Your task to perform on an android device: Open the web browser Image 0: 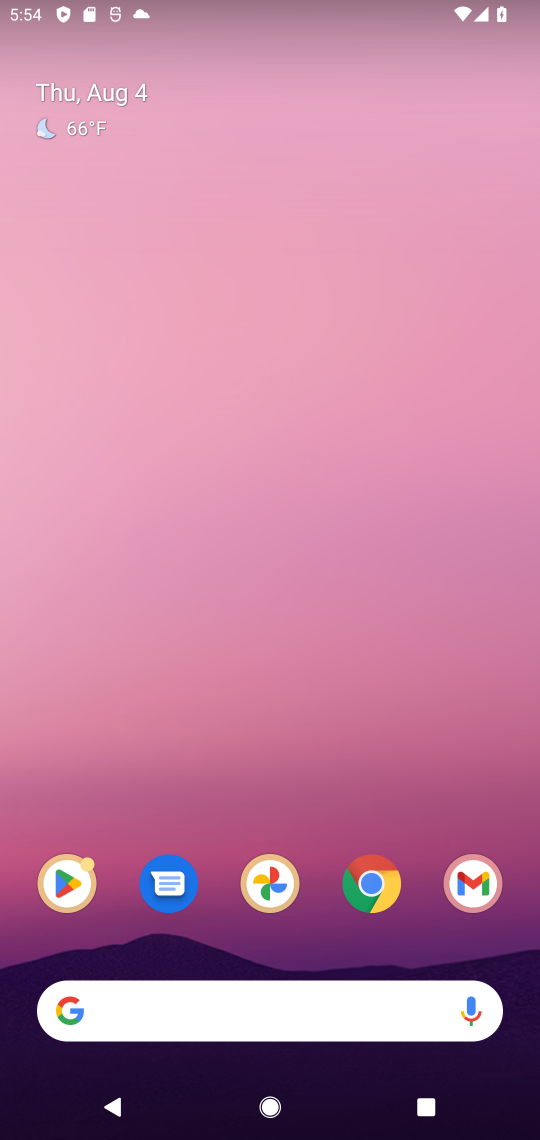
Step 0: click (394, 883)
Your task to perform on an android device: Open the web browser Image 1: 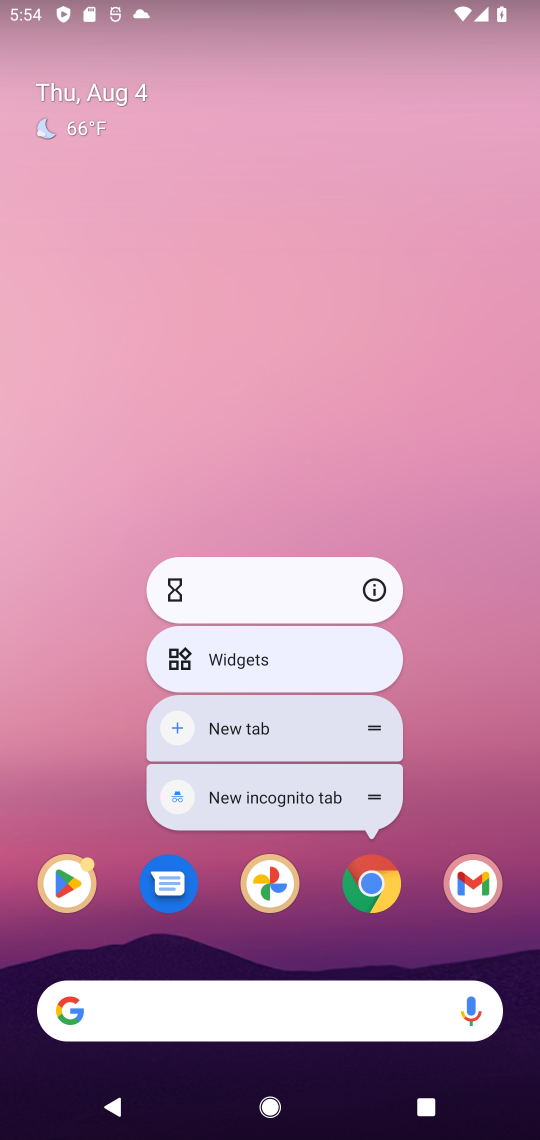
Step 1: click (394, 883)
Your task to perform on an android device: Open the web browser Image 2: 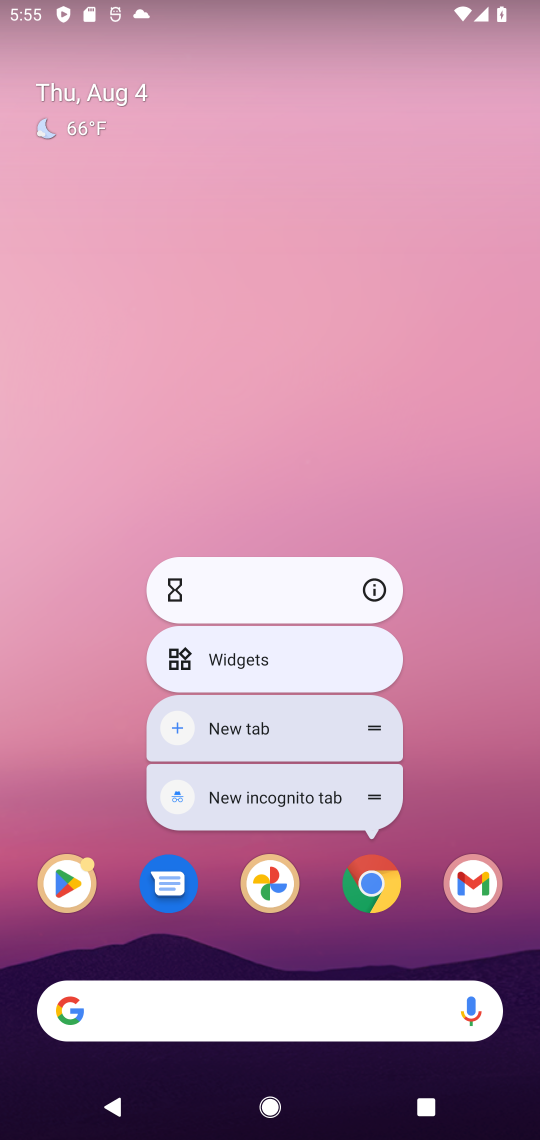
Step 2: click (394, 883)
Your task to perform on an android device: Open the web browser Image 3: 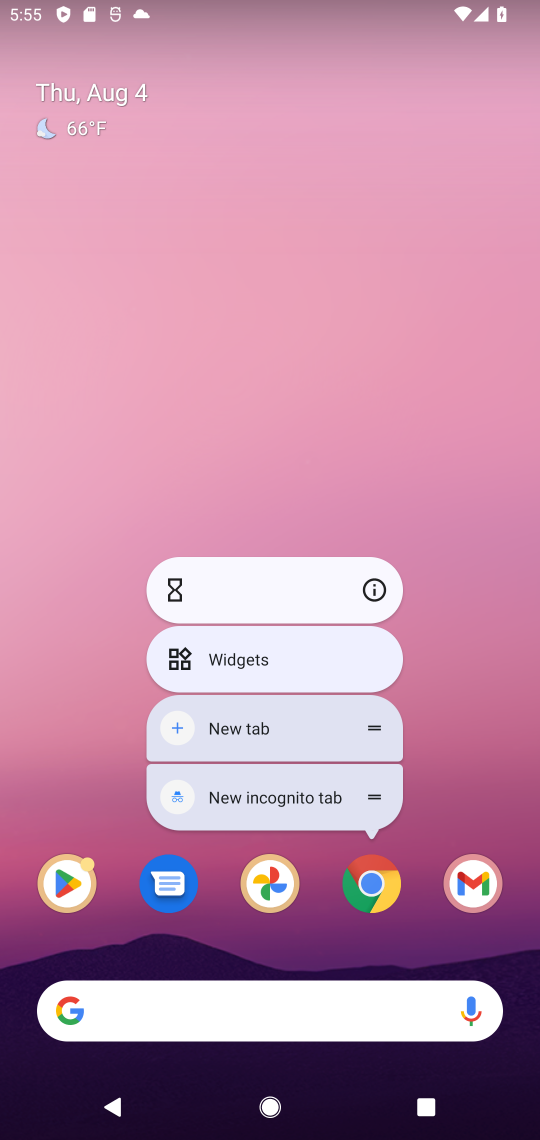
Step 3: click (394, 883)
Your task to perform on an android device: Open the web browser Image 4: 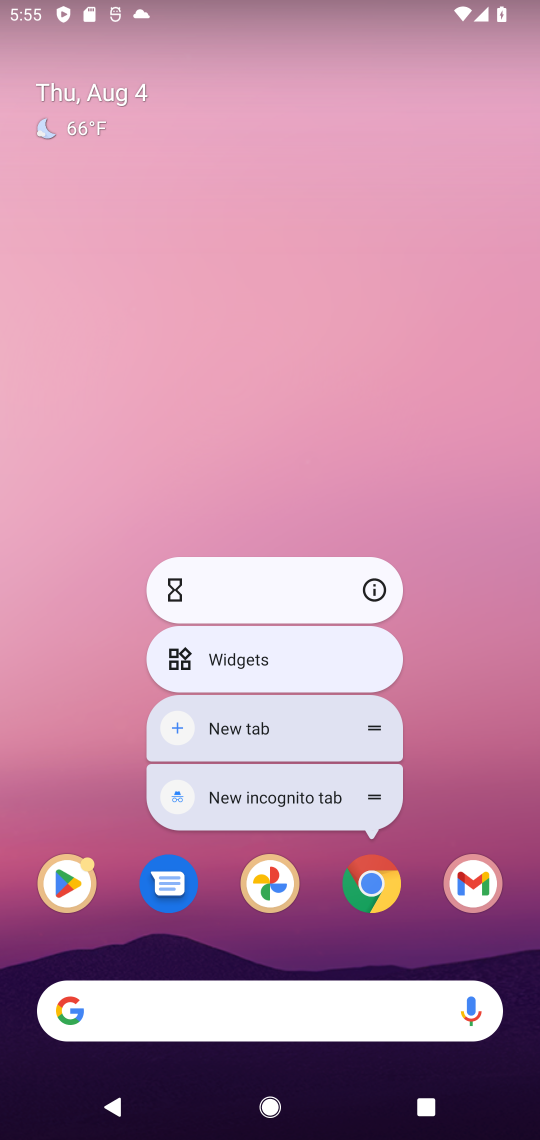
Step 4: click (394, 883)
Your task to perform on an android device: Open the web browser Image 5: 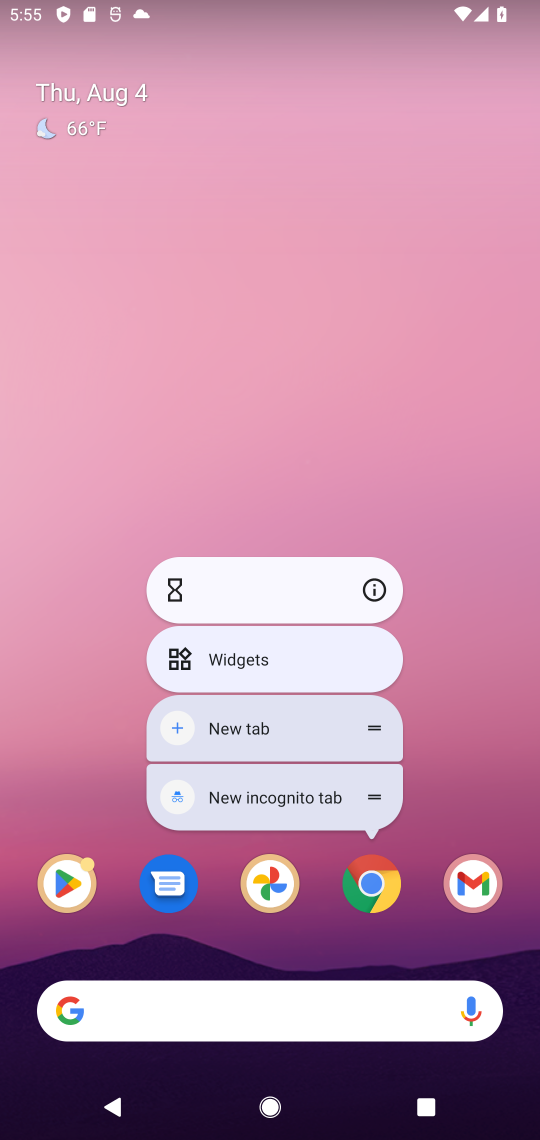
Step 5: click (374, 878)
Your task to perform on an android device: Open the web browser Image 6: 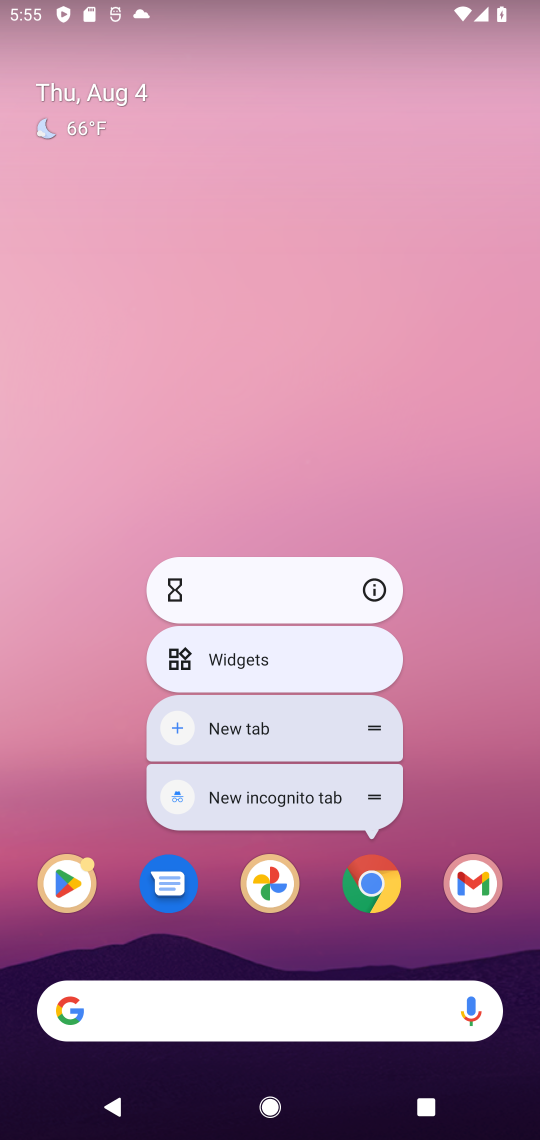
Step 6: click (388, 909)
Your task to perform on an android device: Open the web browser Image 7: 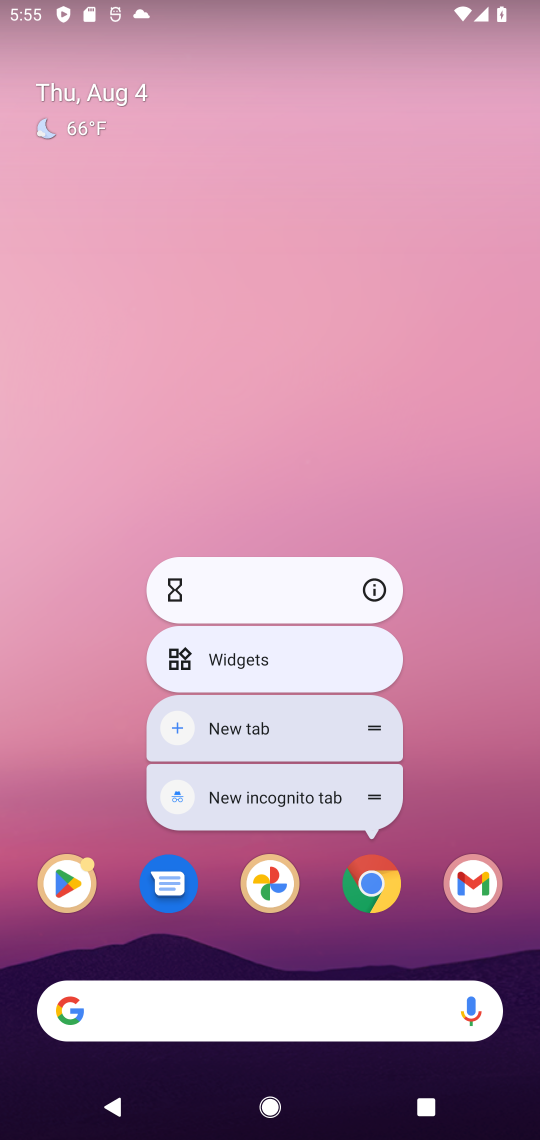
Step 7: click (373, 889)
Your task to perform on an android device: Open the web browser Image 8: 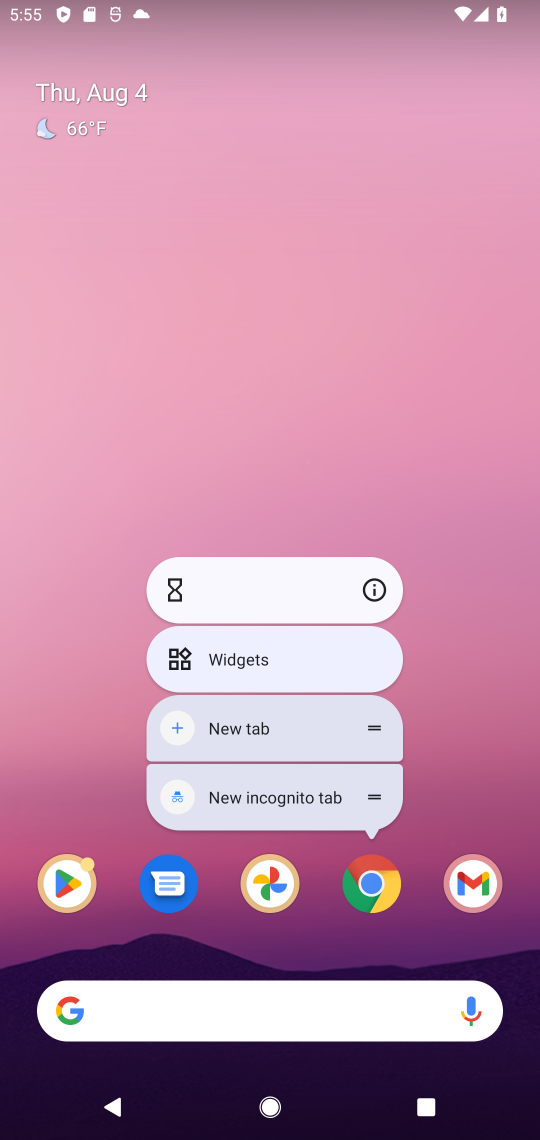
Step 8: click (373, 889)
Your task to perform on an android device: Open the web browser Image 9: 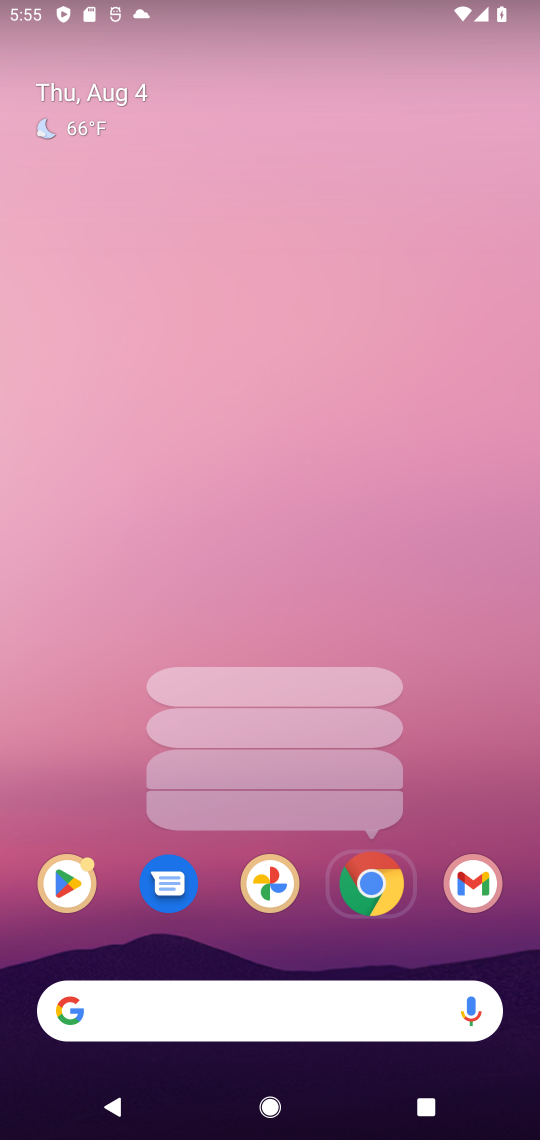
Step 9: click (373, 889)
Your task to perform on an android device: Open the web browser Image 10: 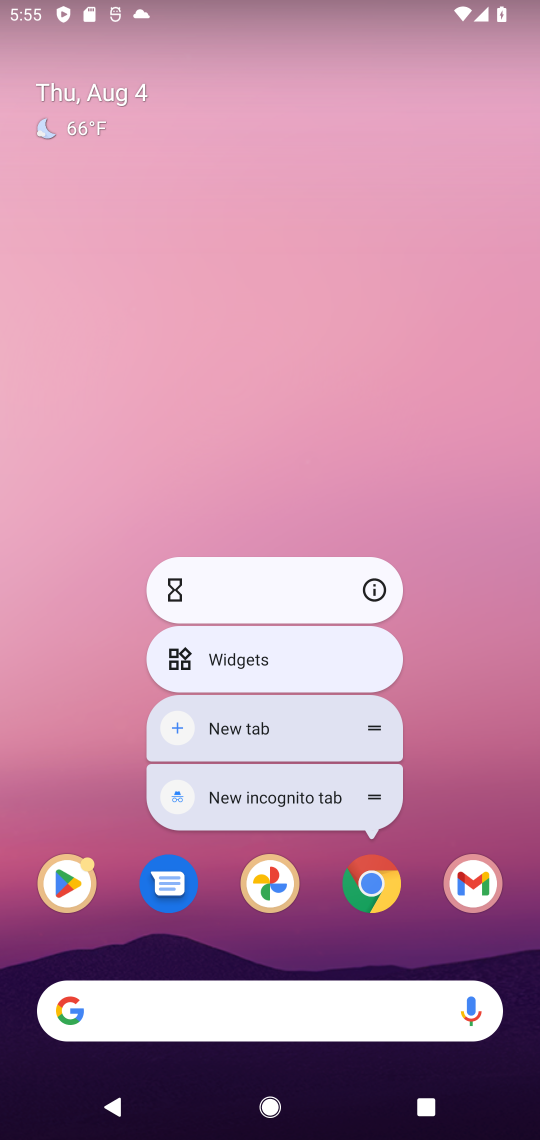
Step 10: task complete